Your task to perform on an android device: star an email in the gmail app Image 0: 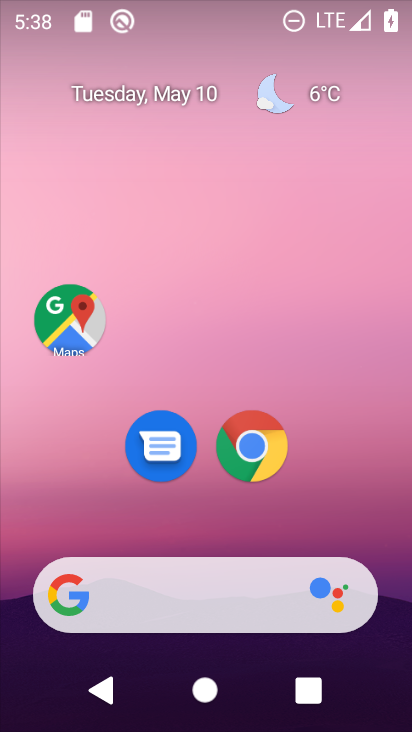
Step 0: drag from (214, 522) to (183, 5)
Your task to perform on an android device: star an email in the gmail app Image 1: 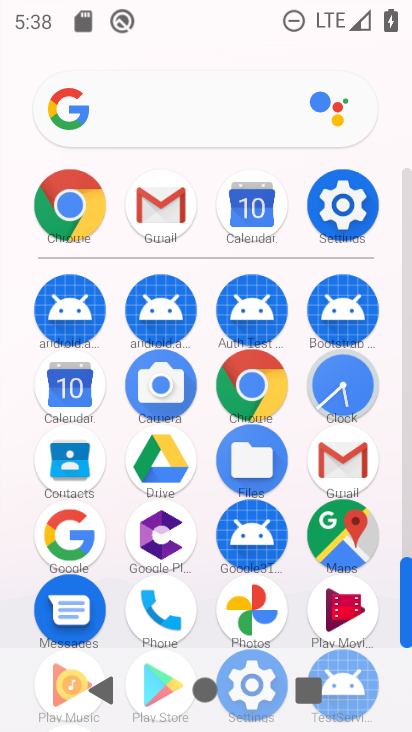
Step 1: click (345, 453)
Your task to perform on an android device: star an email in the gmail app Image 2: 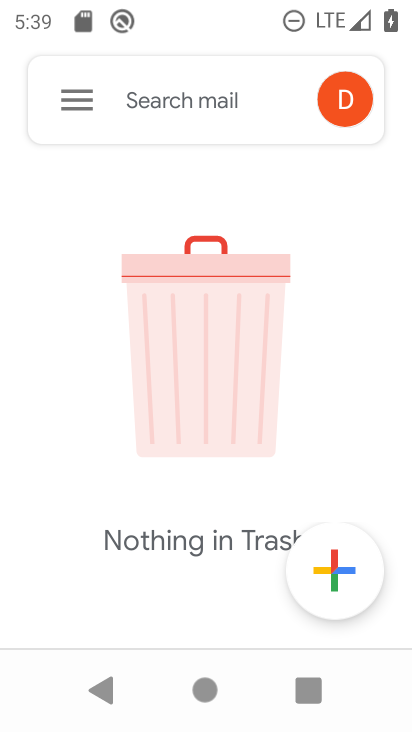
Step 2: click (82, 102)
Your task to perform on an android device: star an email in the gmail app Image 3: 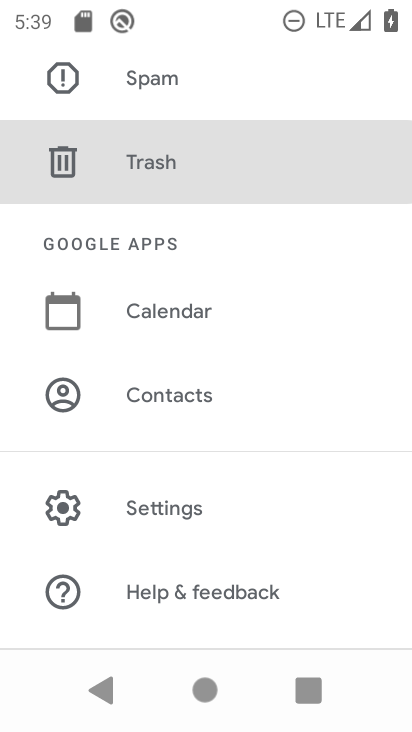
Step 3: drag from (217, 238) to (228, 587)
Your task to perform on an android device: star an email in the gmail app Image 4: 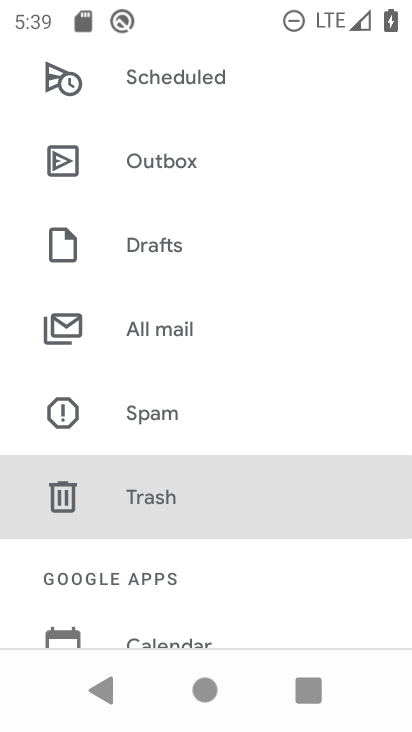
Step 4: click (190, 326)
Your task to perform on an android device: star an email in the gmail app Image 5: 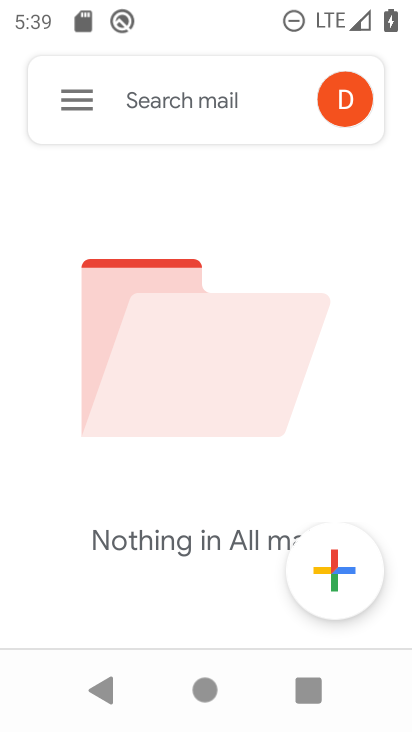
Step 5: task complete